Your task to perform on an android device: Open Reddit.com Image 0: 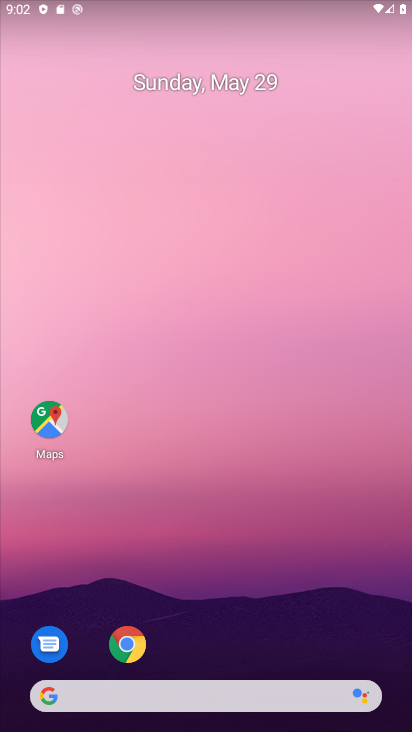
Step 0: drag from (263, 551) to (258, 200)
Your task to perform on an android device: Open Reddit.com Image 1: 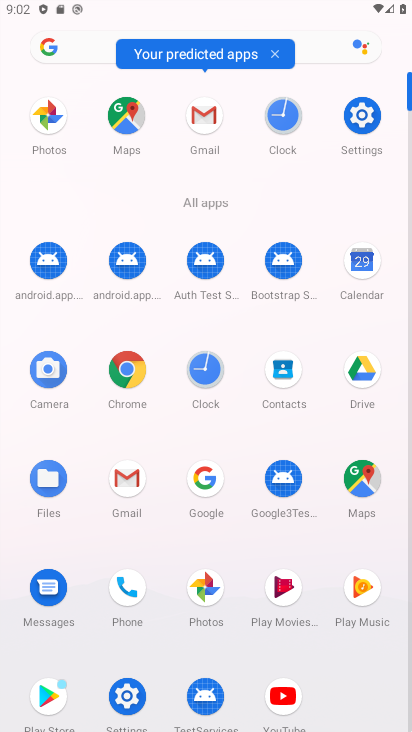
Step 1: click (124, 373)
Your task to perform on an android device: Open Reddit.com Image 2: 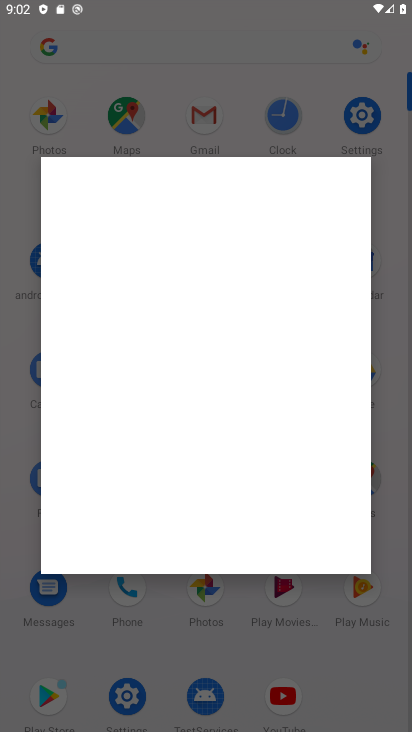
Step 2: click (124, 373)
Your task to perform on an android device: Open Reddit.com Image 3: 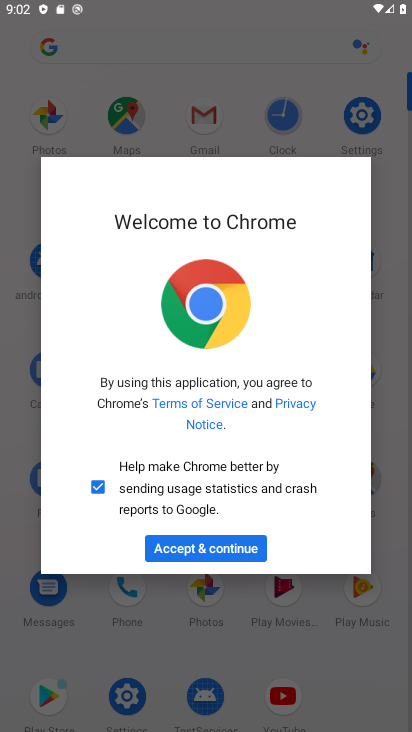
Step 3: click (209, 543)
Your task to perform on an android device: Open Reddit.com Image 4: 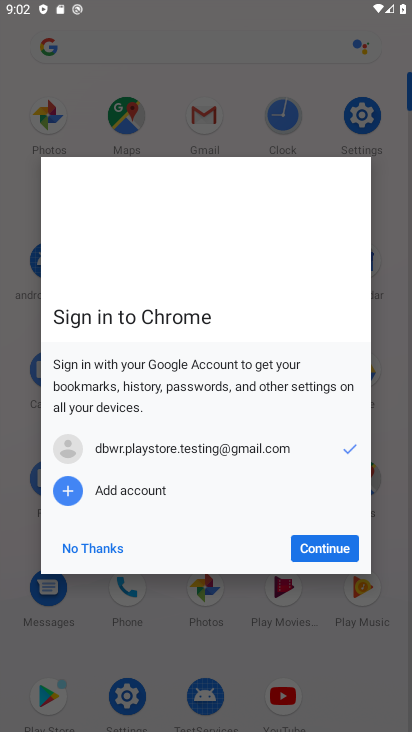
Step 4: click (320, 543)
Your task to perform on an android device: Open Reddit.com Image 5: 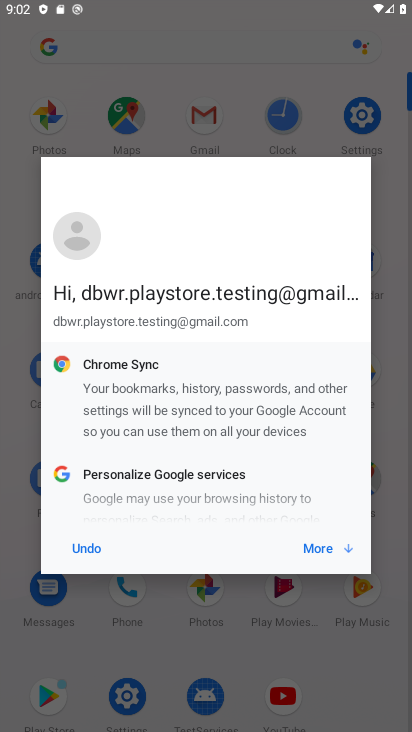
Step 5: click (319, 543)
Your task to perform on an android device: Open Reddit.com Image 6: 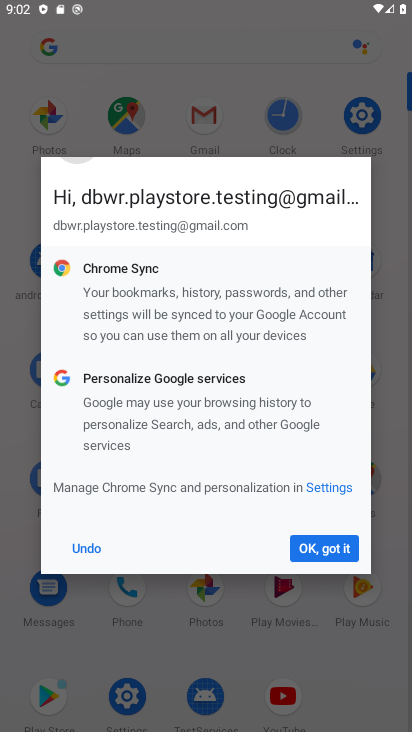
Step 6: click (327, 542)
Your task to perform on an android device: Open Reddit.com Image 7: 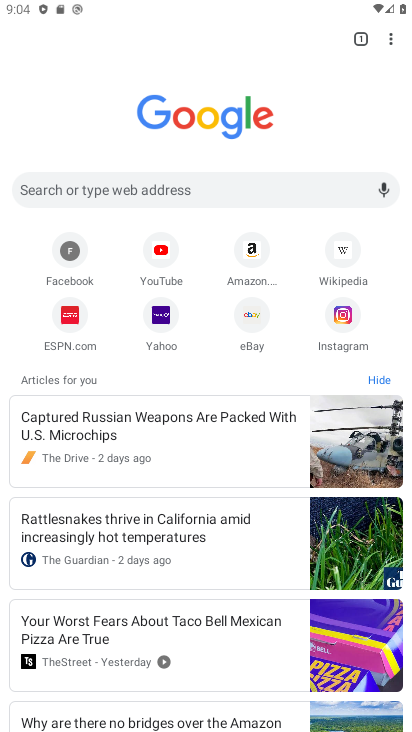
Step 7: click (167, 179)
Your task to perform on an android device: Open Reddit.com Image 8: 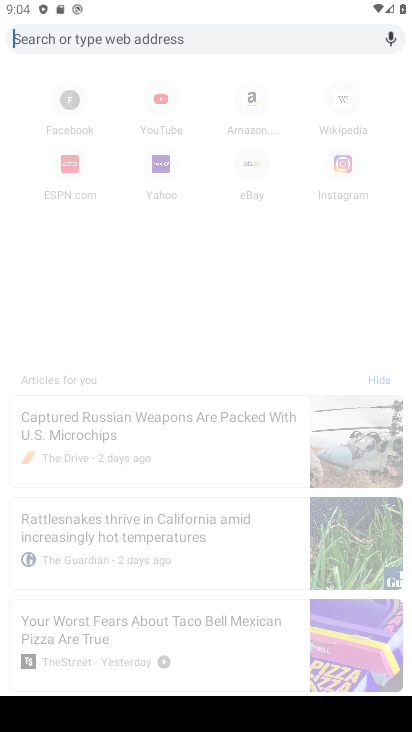
Step 8: type "Reddit.com"
Your task to perform on an android device: Open Reddit.com Image 9: 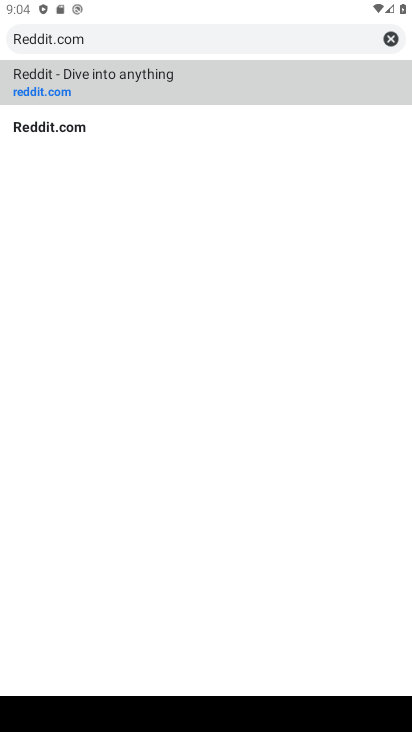
Step 9: click (257, 76)
Your task to perform on an android device: Open Reddit.com Image 10: 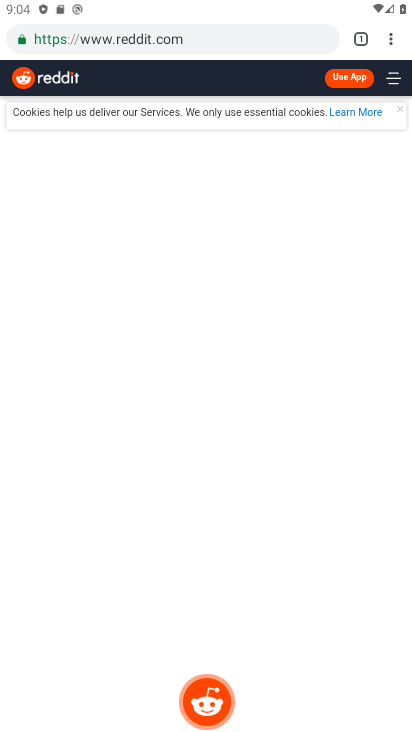
Step 10: task complete